Your task to perform on an android device: open app "Google Chrome" (install if not already installed) Image 0: 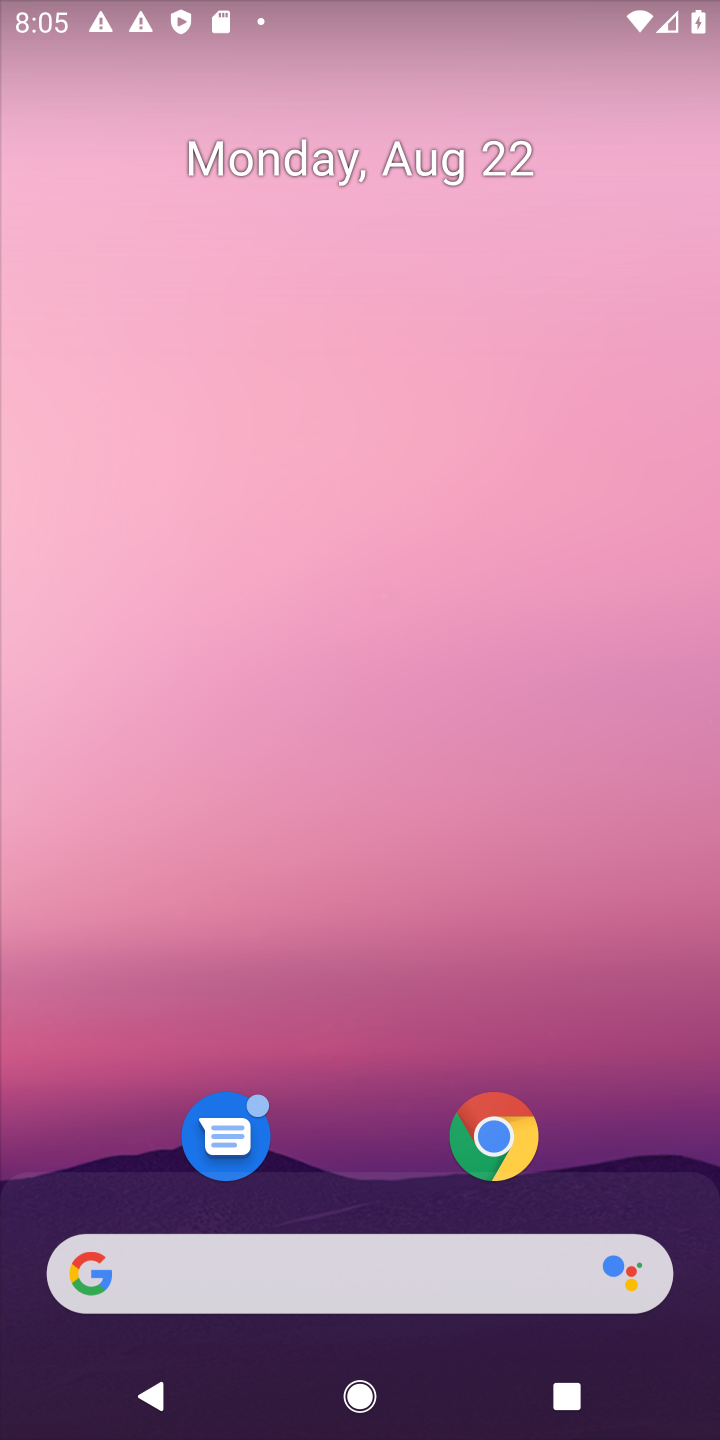
Step 0: drag from (460, 1174) to (427, 394)
Your task to perform on an android device: open app "Google Chrome" (install if not already installed) Image 1: 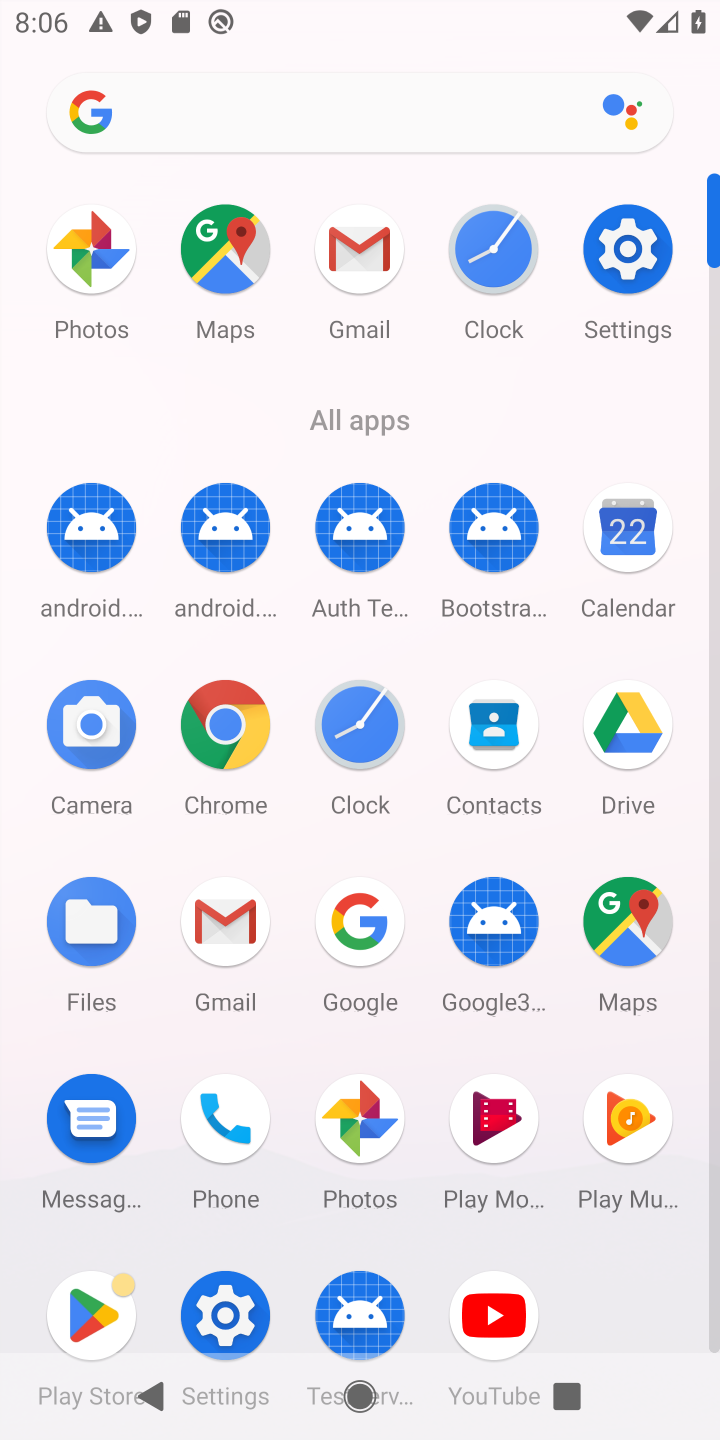
Step 1: click (80, 1294)
Your task to perform on an android device: open app "Google Chrome" (install if not already installed) Image 2: 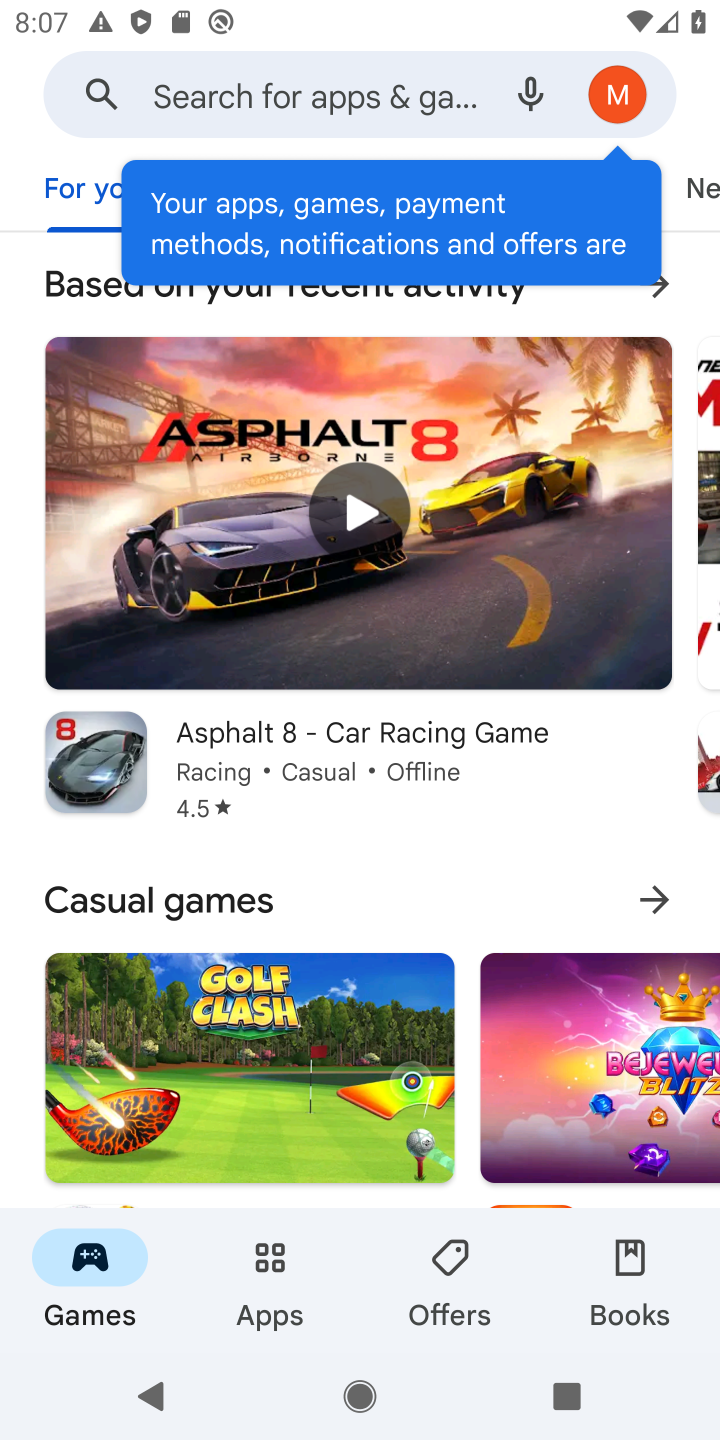
Step 2: click (323, 72)
Your task to perform on an android device: open app "Google Chrome" (install if not already installed) Image 3: 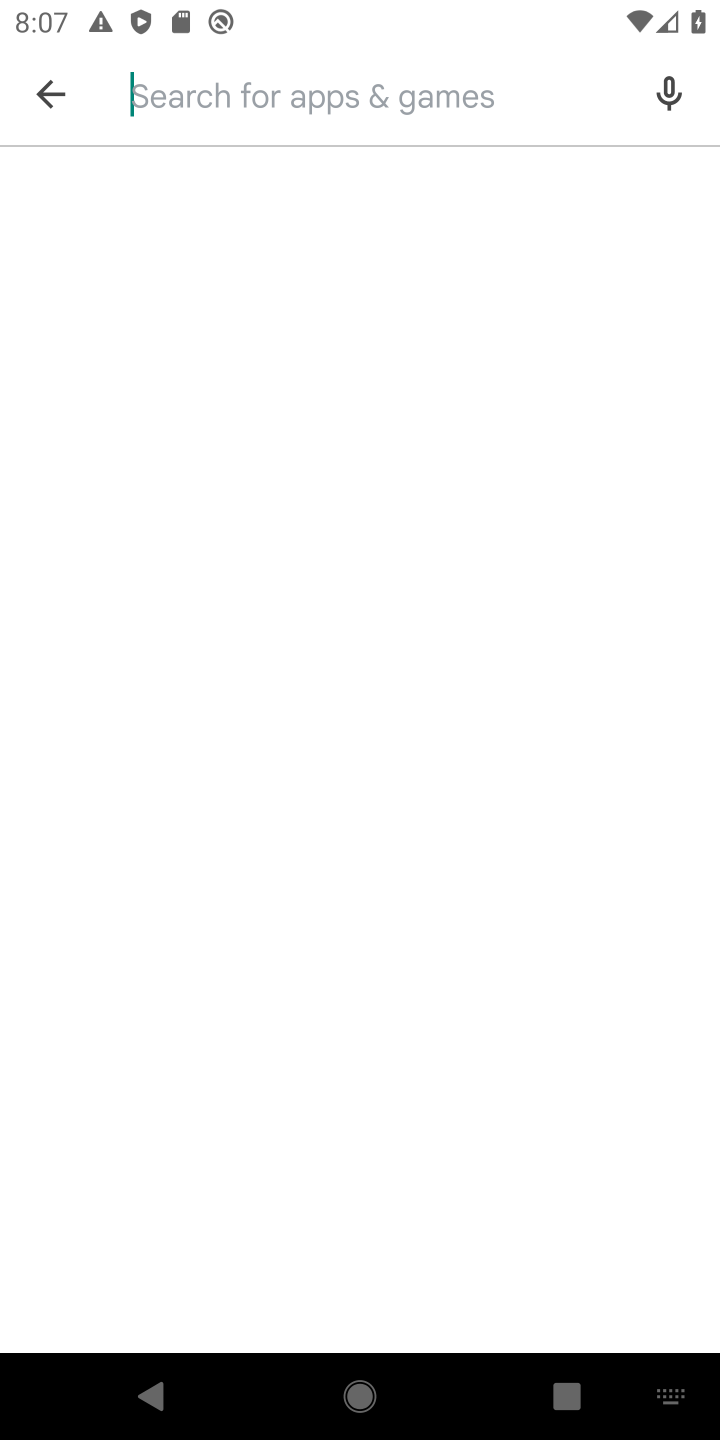
Step 3: type "Google Chrome  "
Your task to perform on an android device: open app "Google Chrome" (install if not already installed) Image 4: 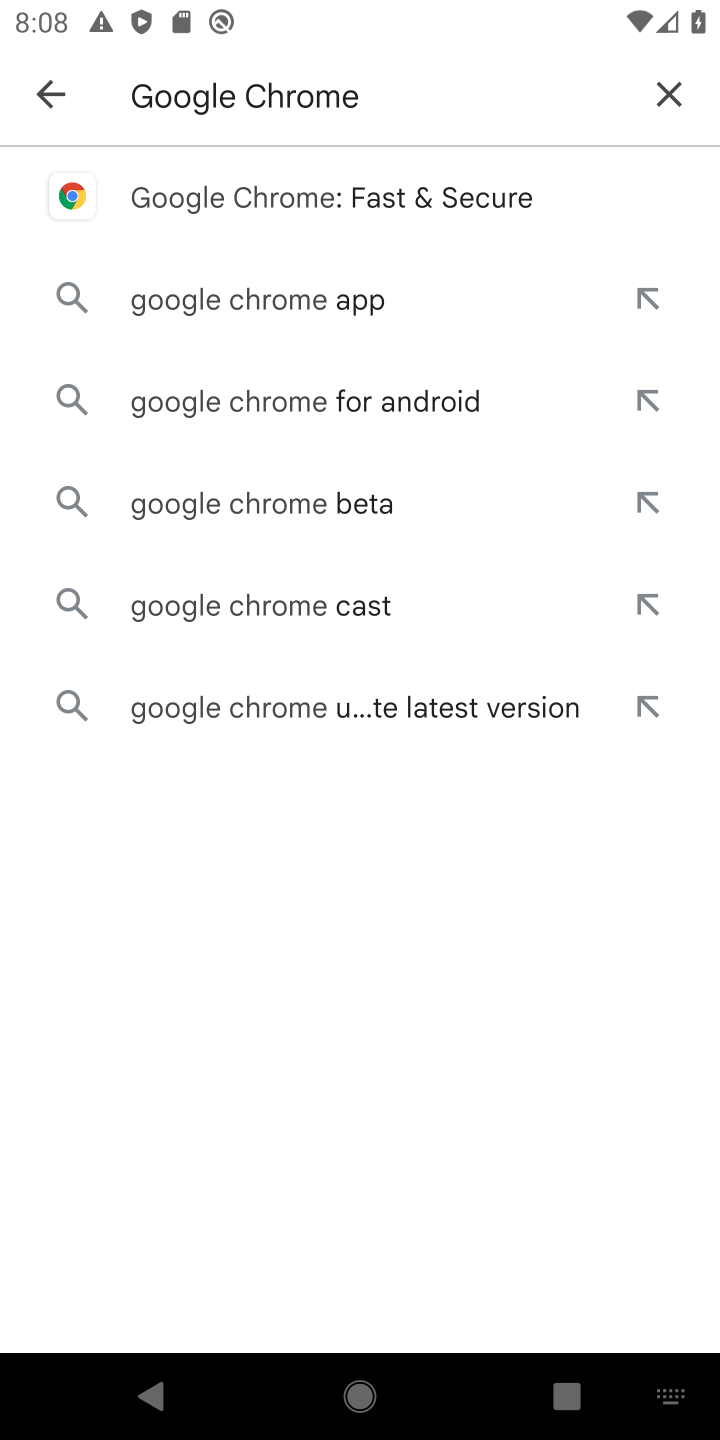
Step 4: click (416, 211)
Your task to perform on an android device: open app "Google Chrome" (install if not already installed) Image 5: 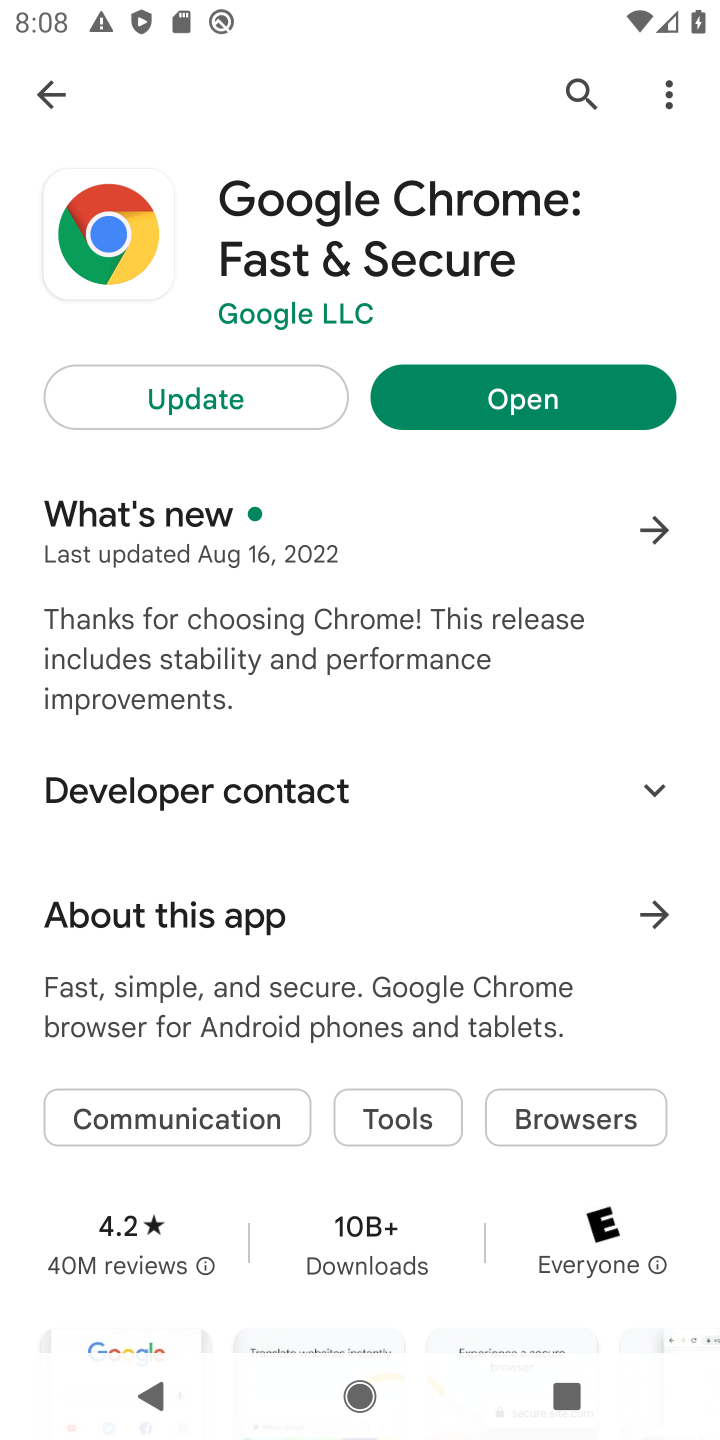
Step 5: click (497, 385)
Your task to perform on an android device: open app "Google Chrome" (install if not already installed) Image 6: 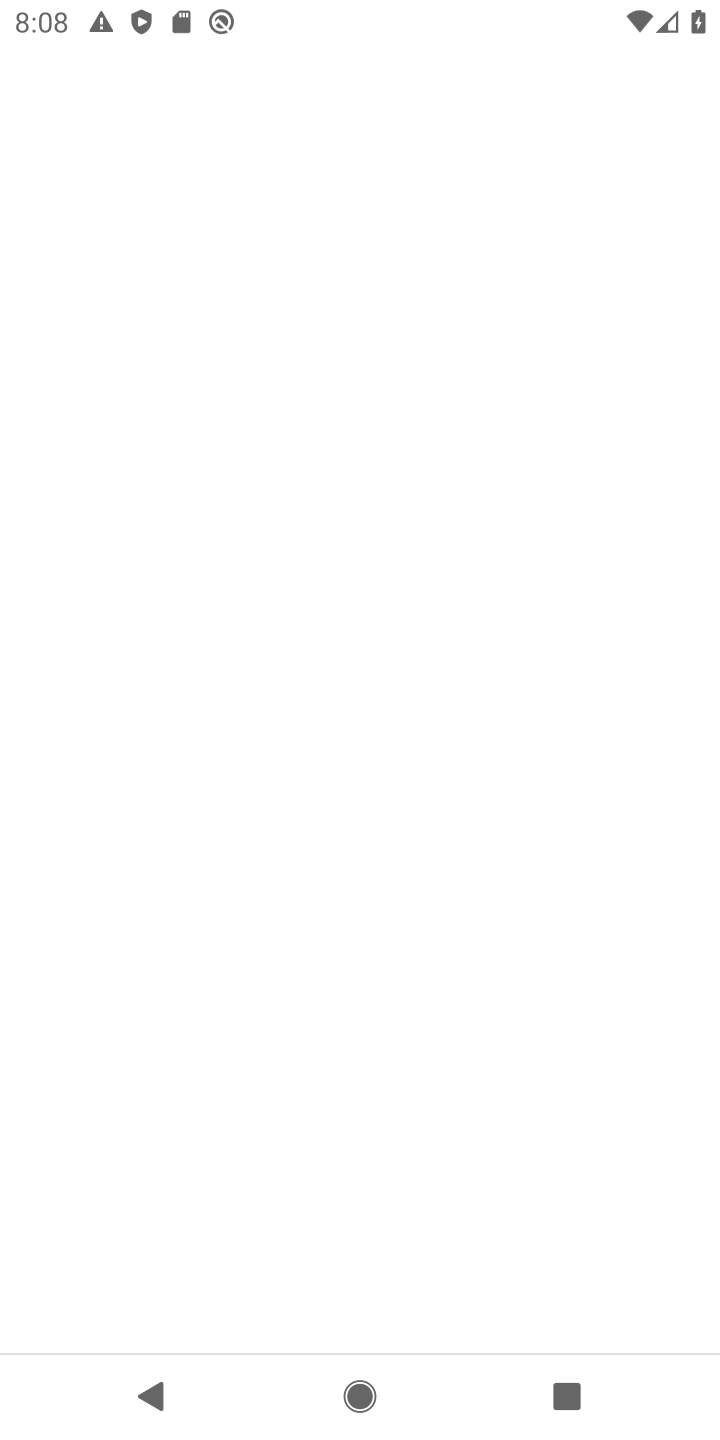
Step 6: task complete